Your task to perform on an android device: toggle notifications settings in the gmail app Image 0: 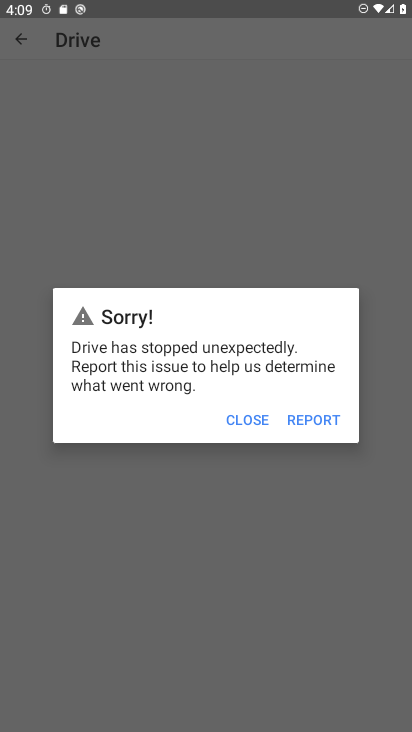
Step 0: press home button
Your task to perform on an android device: toggle notifications settings in the gmail app Image 1: 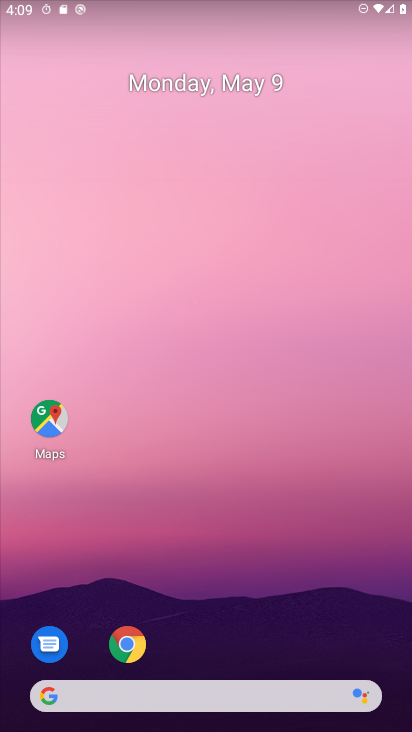
Step 1: drag from (192, 661) to (175, 194)
Your task to perform on an android device: toggle notifications settings in the gmail app Image 2: 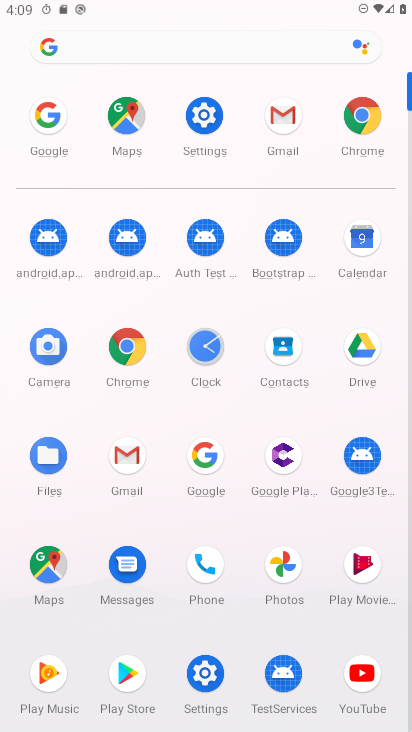
Step 2: click (297, 106)
Your task to perform on an android device: toggle notifications settings in the gmail app Image 3: 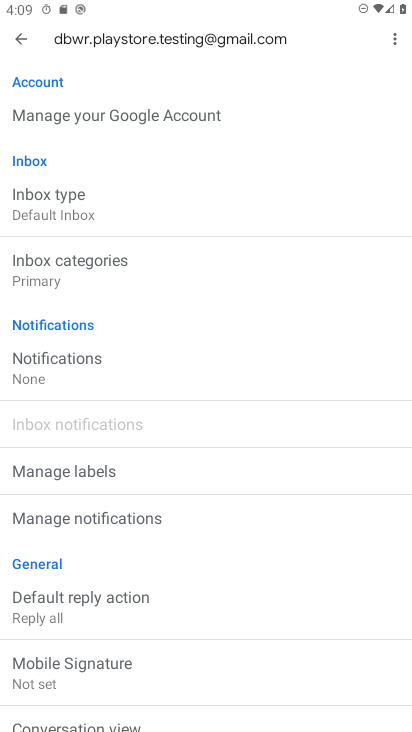
Step 3: drag from (112, 221) to (126, 628)
Your task to perform on an android device: toggle notifications settings in the gmail app Image 4: 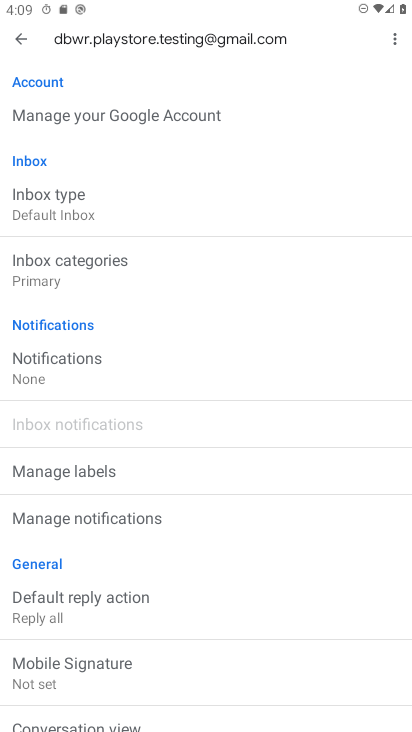
Step 4: drag from (144, 666) to (209, 263)
Your task to perform on an android device: toggle notifications settings in the gmail app Image 5: 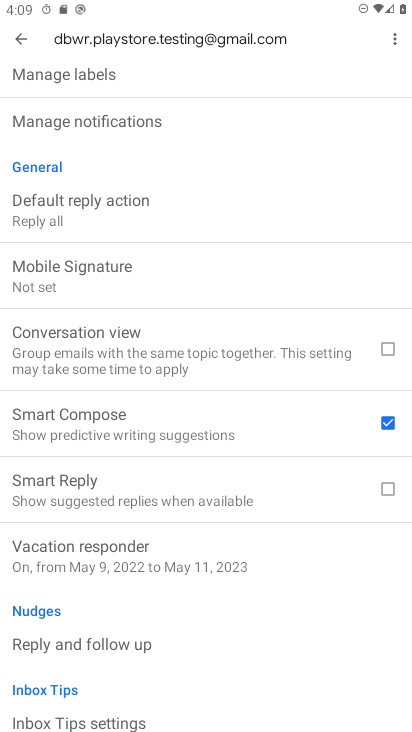
Step 5: drag from (157, 168) to (157, 662)
Your task to perform on an android device: toggle notifications settings in the gmail app Image 6: 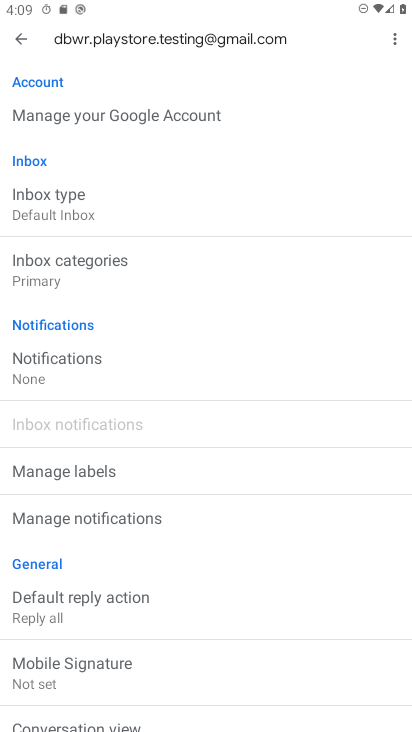
Step 6: drag from (164, 228) to (166, 624)
Your task to perform on an android device: toggle notifications settings in the gmail app Image 7: 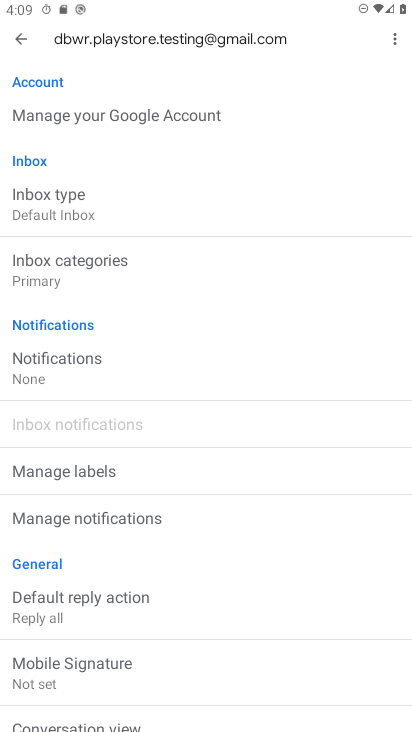
Step 7: click (72, 387)
Your task to perform on an android device: toggle notifications settings in the gmail app Image 8: 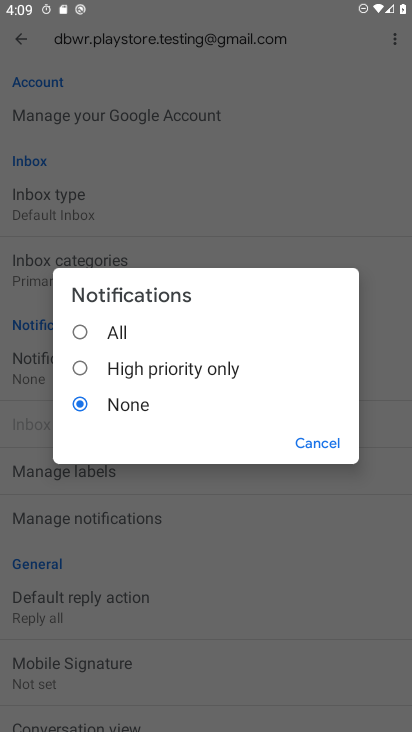
Step 8: click (83, 322)
Your task to perform on an android device: toggle notifications settings in the gmail app Image 9: 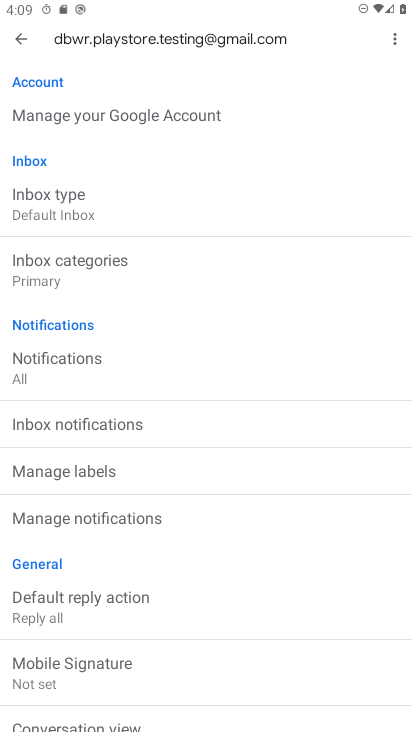
Step 9: task complete